Your task to perform on an android device: change the clock display to analog Image 0: 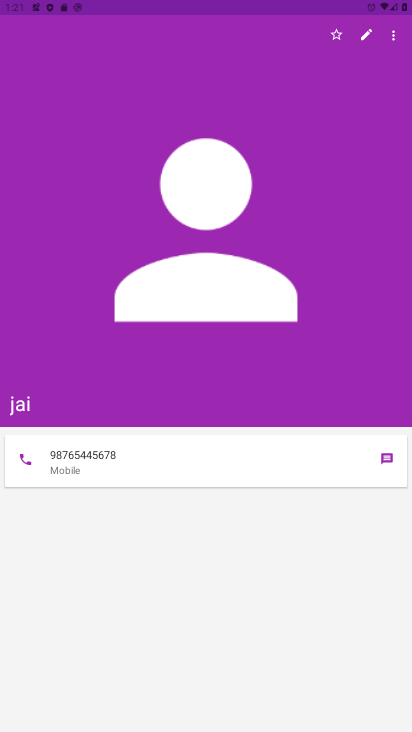
Step 0: press home button
Your task to perform on an android device: change the clock display to analog Image 1: 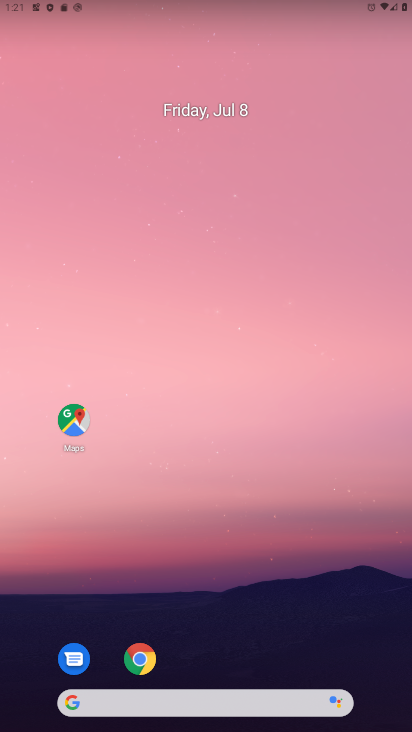
Step 1: drag from (231, 560) to (189, 157)
Your task to perform on an android device: change the clock display to analog Image 2: 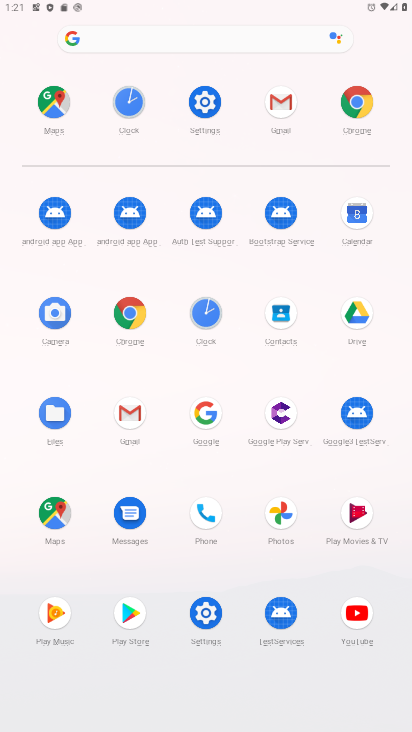
Step 2: click (201, 315)
Your task to perform on an android device: change the clock display to analog Image 3: 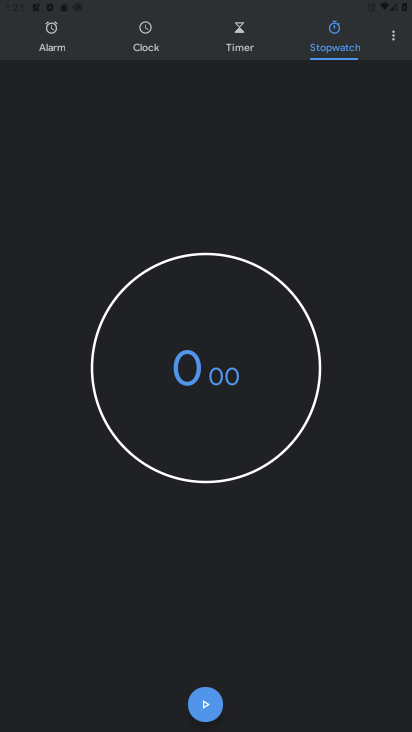
Step 3: click (394, 39)
Your task to perform on an android device: change the clock display to analog Image 4: 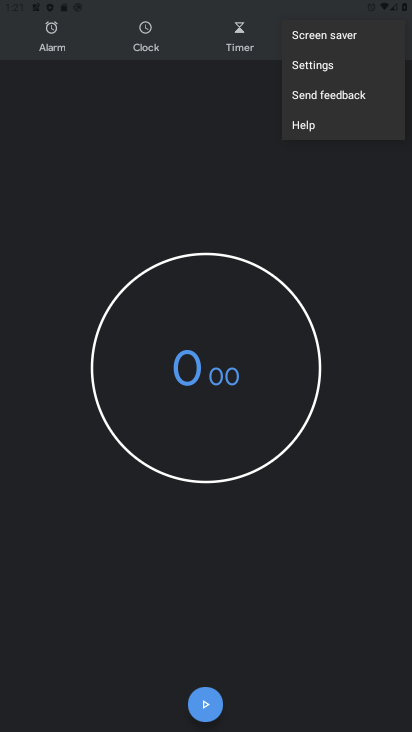
Step 4: click (331, 65)
Your task to perform on an android device: change the clock display to analog Image 5: 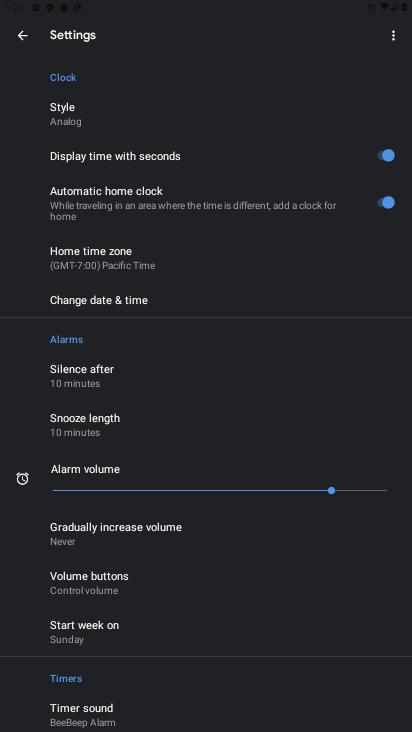
Step 5: click (66, 111)
Your task to perform on an android device: change the clock display to analog Image 6: 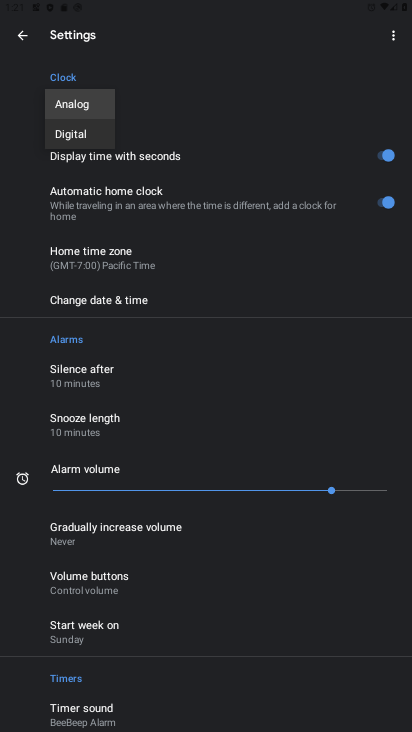
Step 6: click (73, 107)
Your task to perform on an android device: change the clock display to analog Image 7: 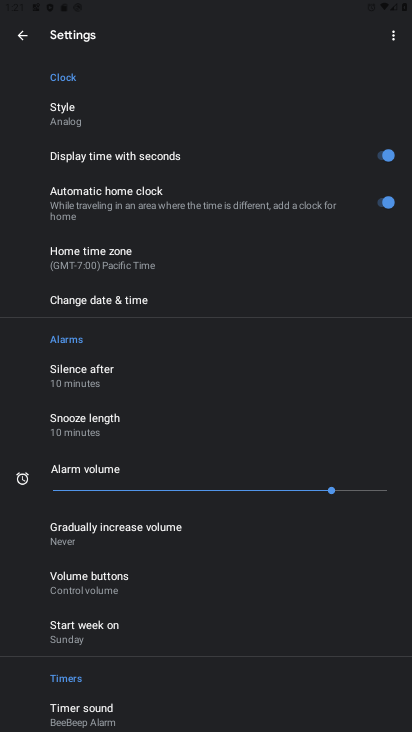
Step 7: task complete